Your task to perform on an android device: Search for the best vacuum on Amazon. Image 0: 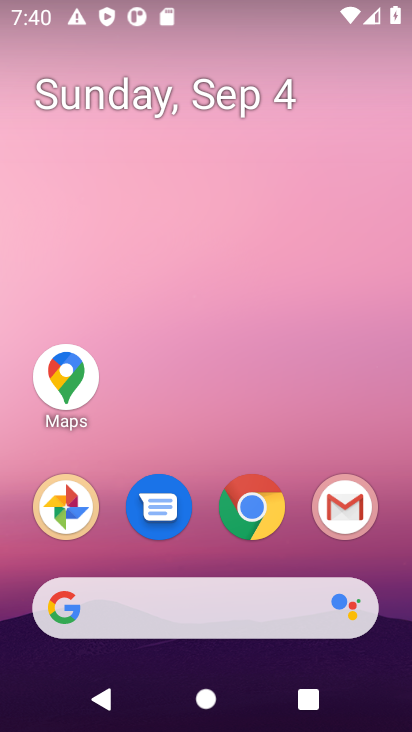
Step 0: click (241, 521)
Your task to perform on an android device: Search for the best vacuum on Amazon. Image 1: 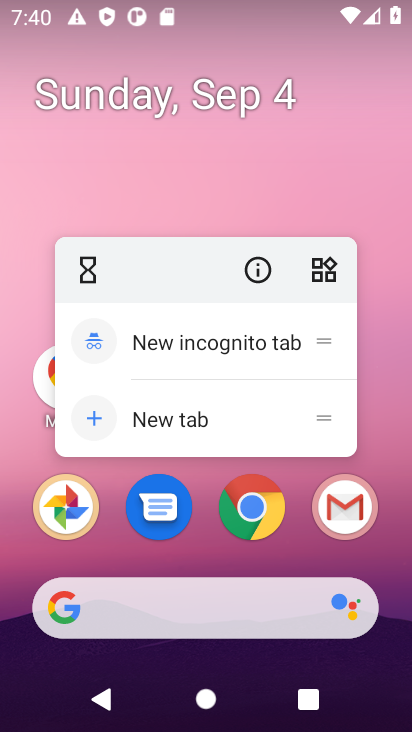
Step 1: click (250, 485)
Your task to perform on an android device: Search for the best vacuum on Amazon. Image 2: 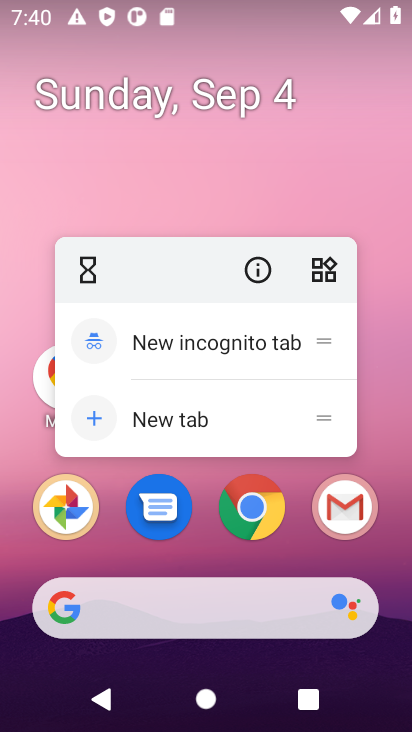
Step 2: click (250, 485)
Your task to perform on an android device: Search for the best vacuum on Amazon. Image 3: 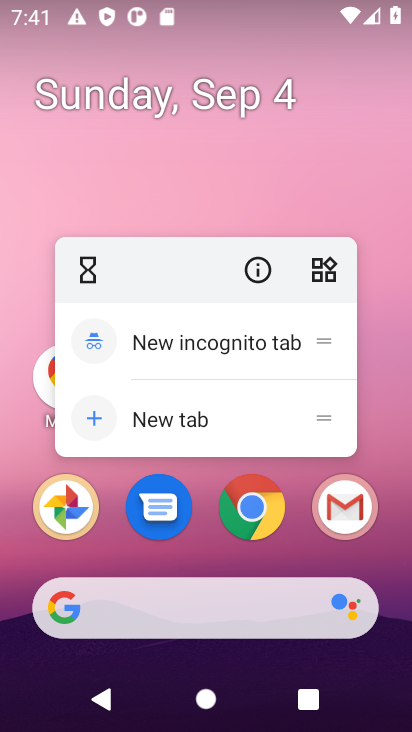
Step 3: click (250, 485)
Your task to perform on an android device: Search for the best vacuum on Amazon. Image 4: 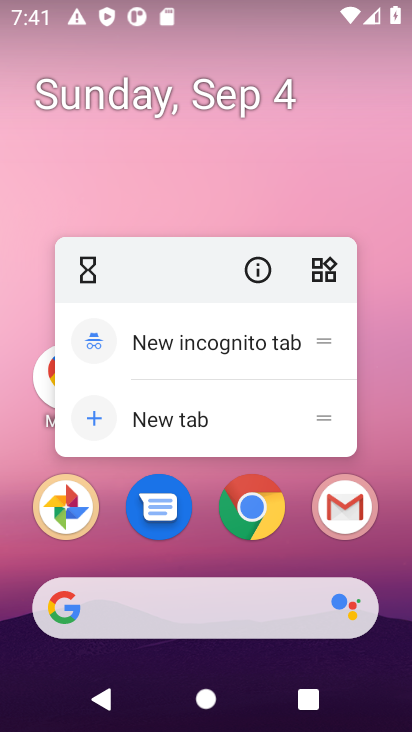
Step 4: click (250, 485)
Your task to perform on an android device: Search for the best vacuum on Amazon. Image 5: 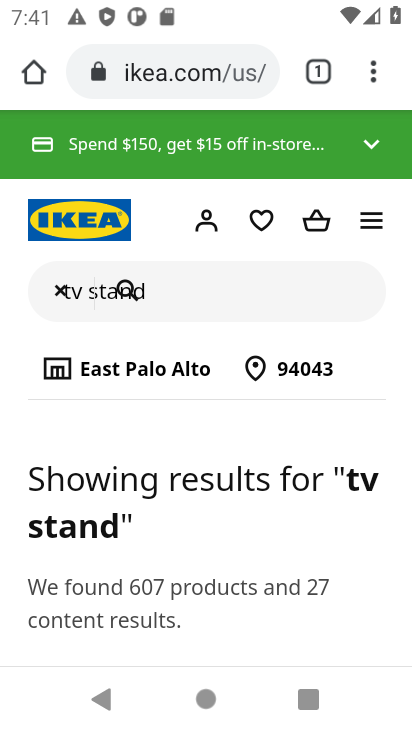
Step 5: click (187, 61)
Your task to perform on an android device: Search for the best vacuum on Amazon. Image 6: 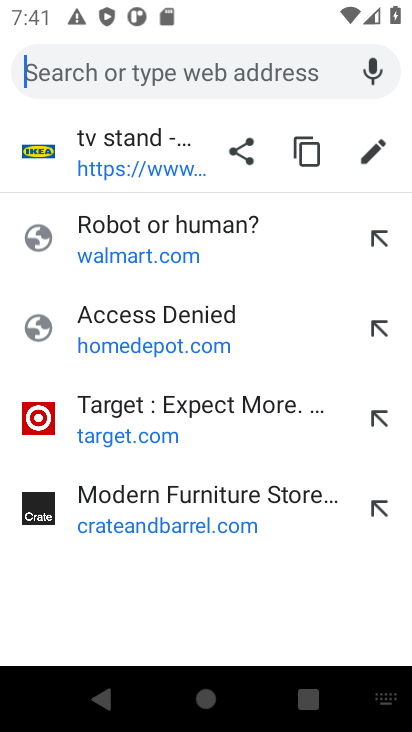
Step 6: type "amazon"
Your task to perform on an android device: Search for the best vacuum on Amazon. Image 7: 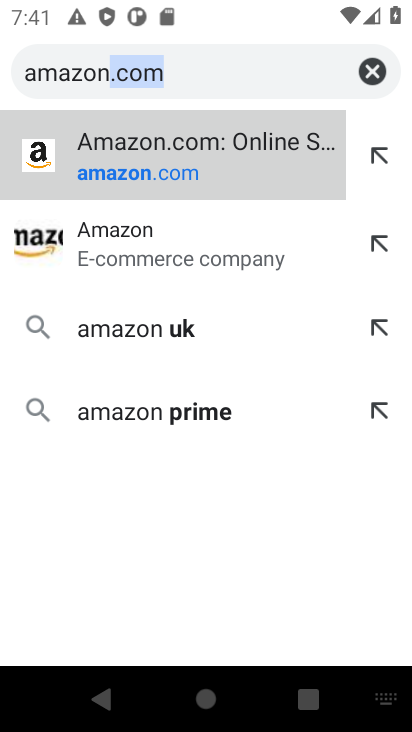
Step 7: click (126, 148)
Your task to perform on an android device: Search for the best vacuum on Amazon. Image 8: 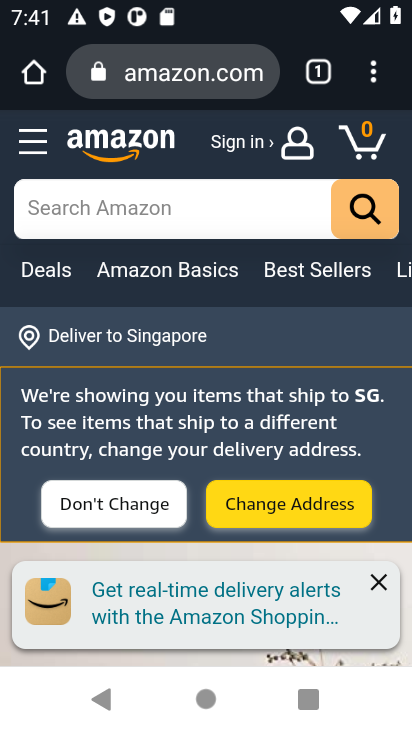
Step 8: click (203, 210)
Your task to perform on an android device: Search for the best vacuum on Amazon. Image 9: 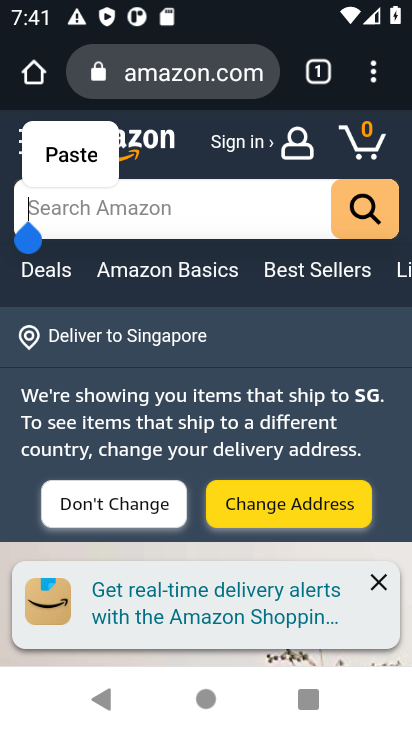
Step 9: type "best vacuum"
Your task to perform on an android device: Search for the best vacuum on Amazon. Image 10: 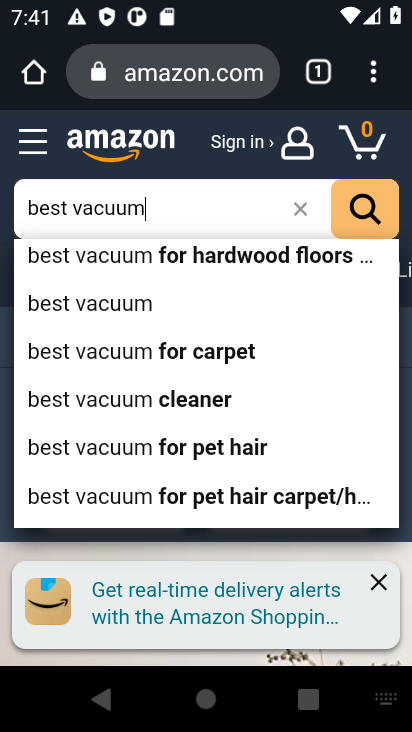
Step 10: click (143, 300)
Your task to perform on an android device: Search for the best vacuum on Amazon. Image 11: 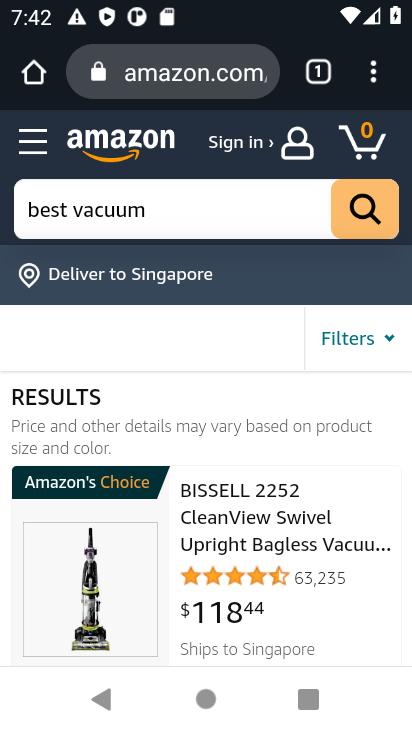
Step 11: task complete